Your task to perform on an android device: Go to Android settings Image 0: 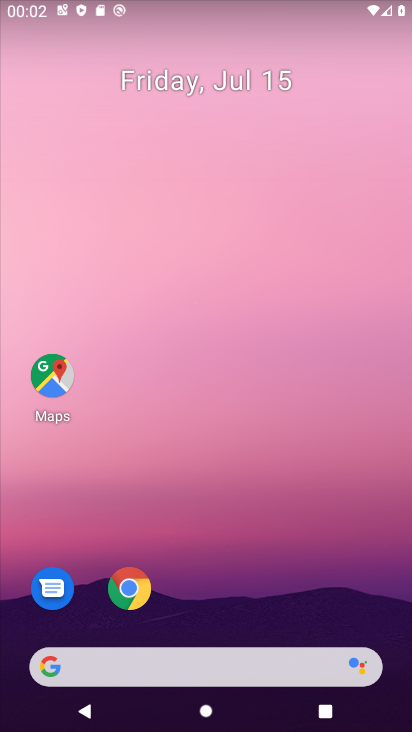
Step 0: drag from (209, 631) to (260, 65)
Your task to perform on an android device: Go to Android settings Image 1: 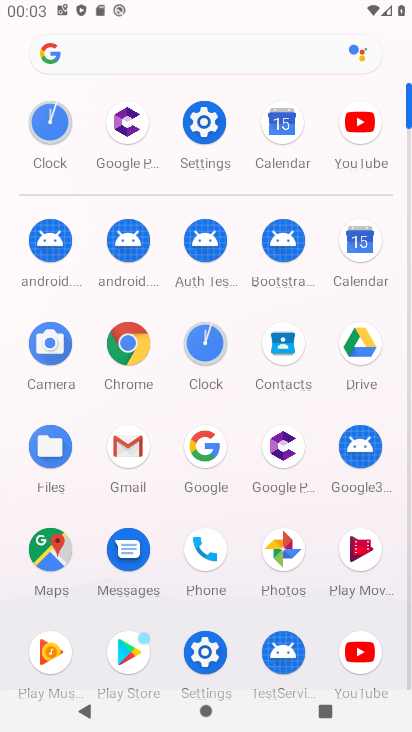
Step 1: click (204, 124)
Your task to perform on an android device: Go to Android settings Image 2: 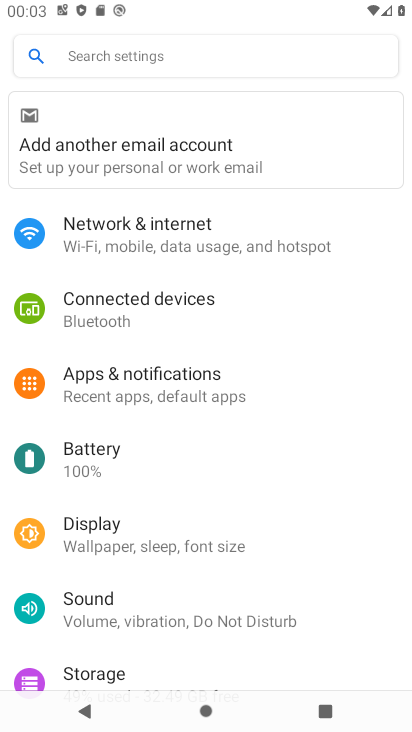
Step 2: drag from (149, 669) to (225, 31)
Your task to perform on an android device: Go to Android settings Image 3: 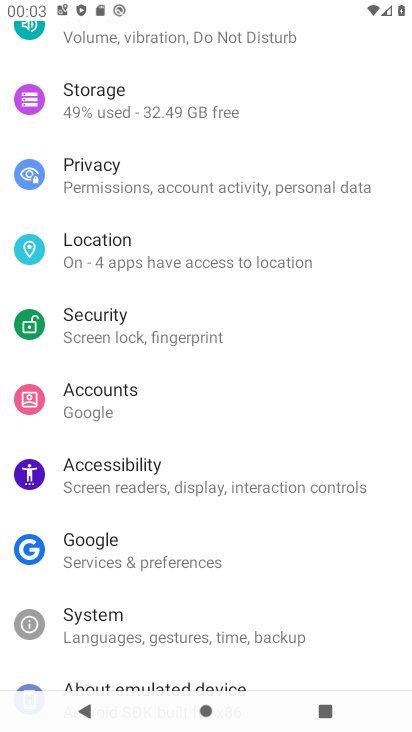
Step 3: drag from (142, 649) to (231, 43)
Your task to perform on an android device: Go to Android settings Image 4: 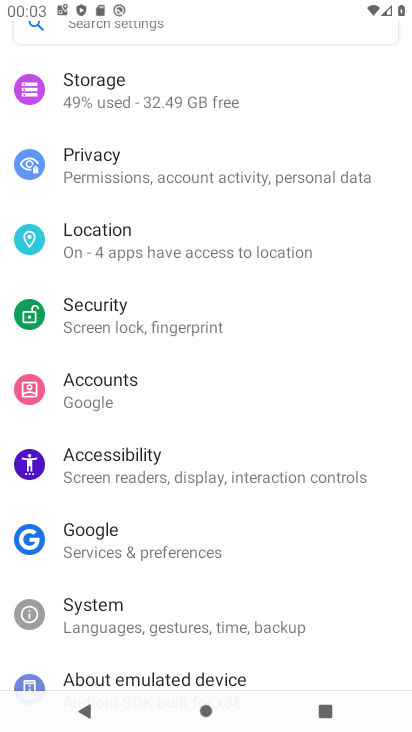
Step 4: drag from (135, 661) to (269, 109)
Your task to perform on an android device: Go to Android settings Image 5: 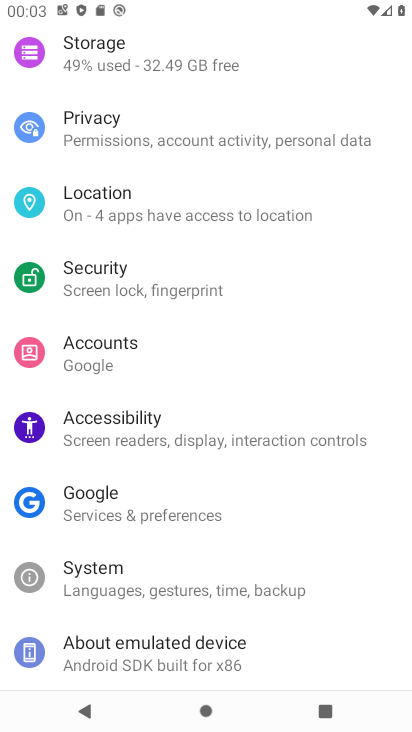
Step 5: click (156, 647)
Your task to perform on an android device: Go to Android settings Image 6: 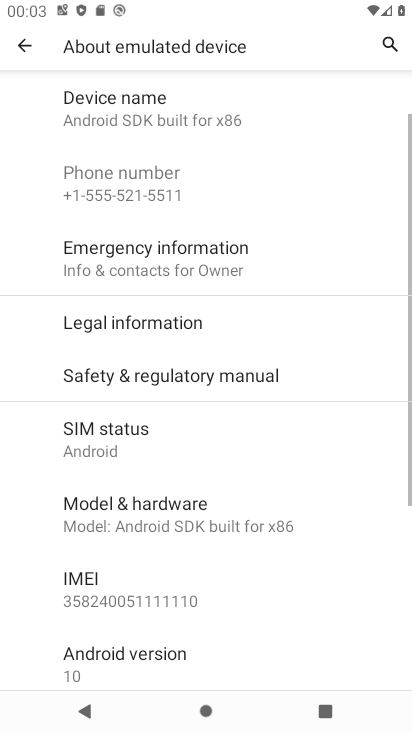
Step 6: click (117, 661)
Your task to perform on an android device: Go to Android settings Image 7: 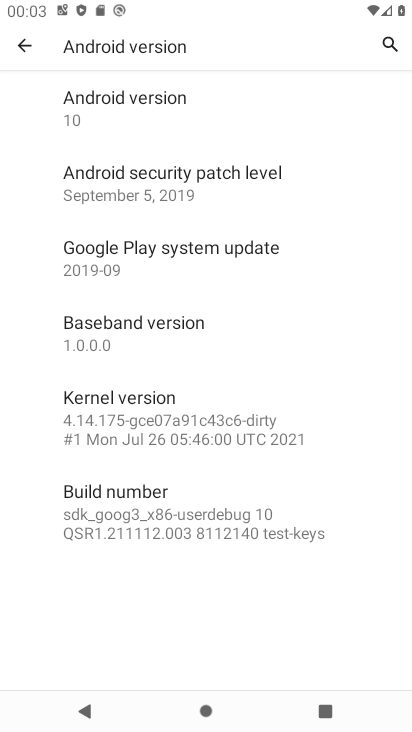
Step 7: task complete